Your task to perform on an android device: Show me some nice wallpapers for my computer Image 0: 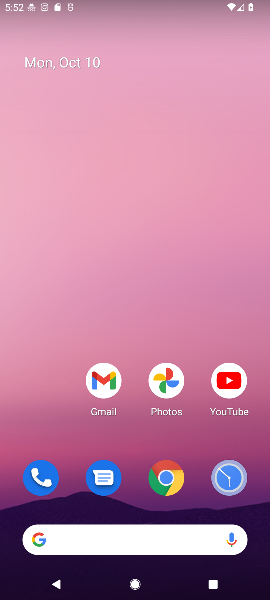
Step 0: click (169, 531)
Your task to perform on an android device: Show me some nice wallpapers for my computer Image 1: 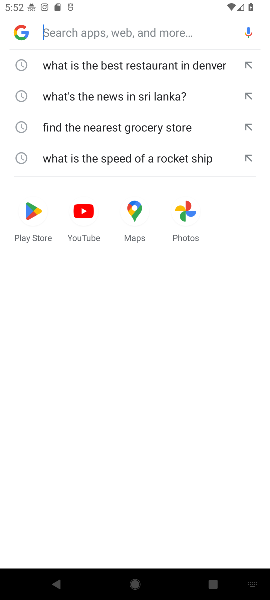
Step 1: type "nice wallpapers for my computer"
Your task to perform on an android device: Show me some nice wallpapers for my computer Image 2: 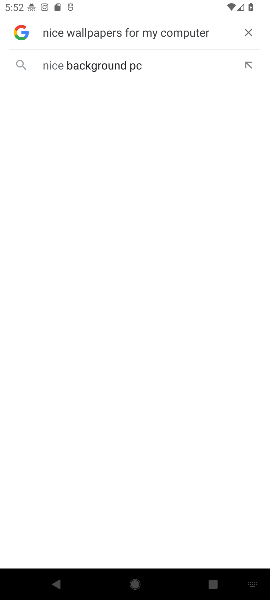
Step 2: click (66, 65)
Your task to perform on an android device: Show me some nice wallpapers for my computer Image 3: 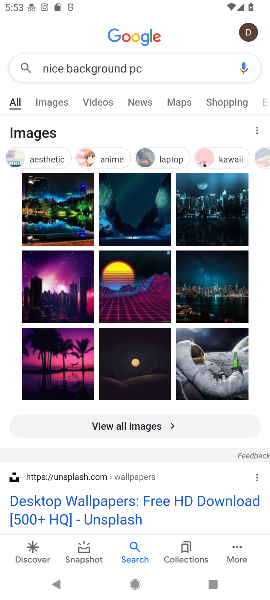
Step 3: click (53, 107)
Your task to perform on an android device: Show me some nice wallpapers for my computer Image 4: 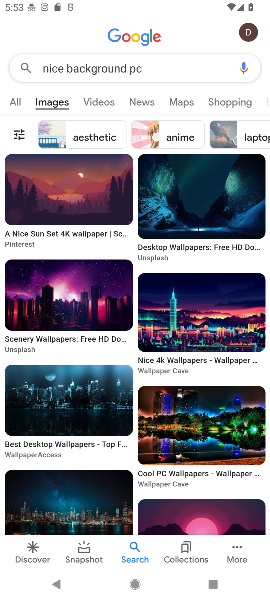
Step 4: task complete